Your task to perform on an android device: toggle sleep mode Image 0: 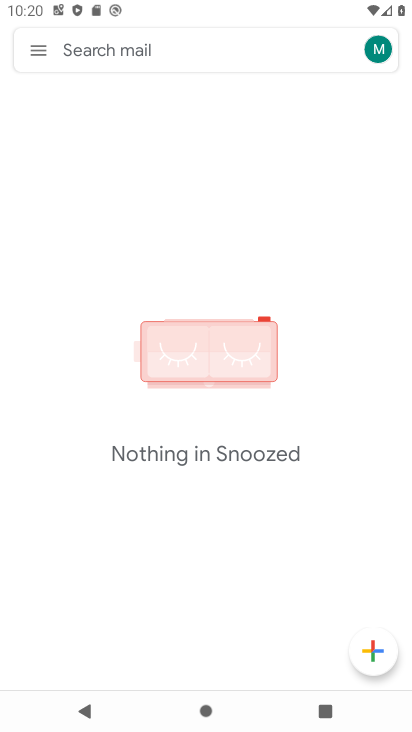
Step 0: press home button
Your task to perform on an android device: toggle sleep mode Image 1: 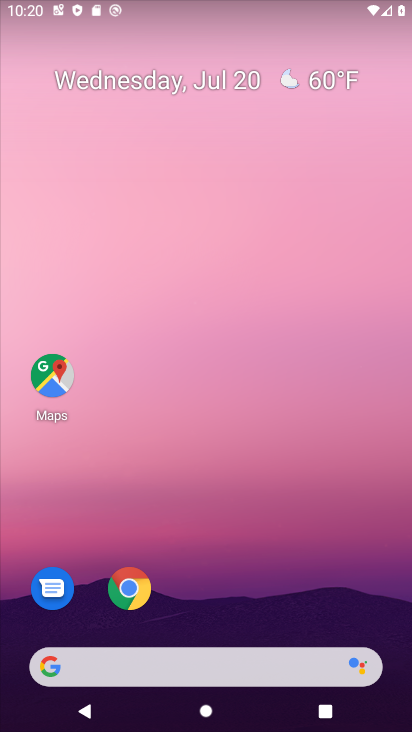
Step 1: drag from (249, 633) to (278, 56)
Your task to perform on an android device: toggle sleep mode Image 2: 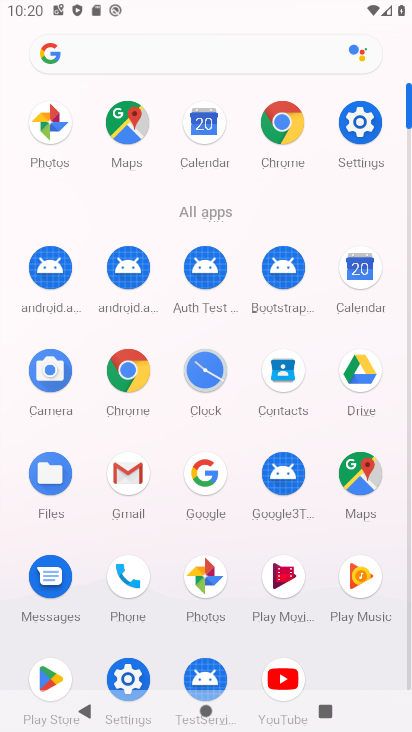
Step 2: click (355, 128)
Your task to perform on an android device: toggle sleep mode Image 3: 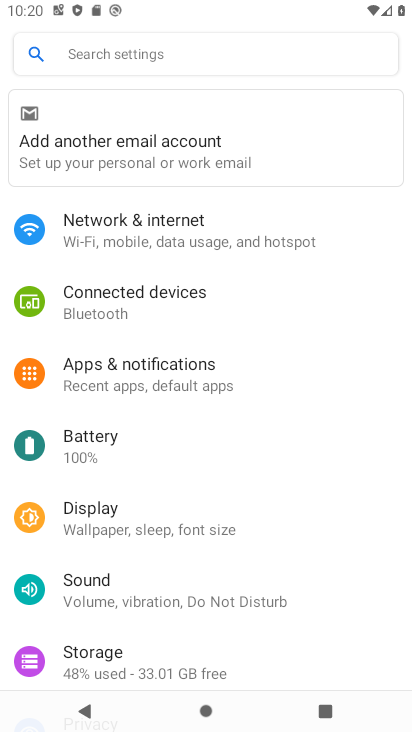
Step 3: click (187, 45)
Your task to perform on an android device: toggle sleep mode Image 4: 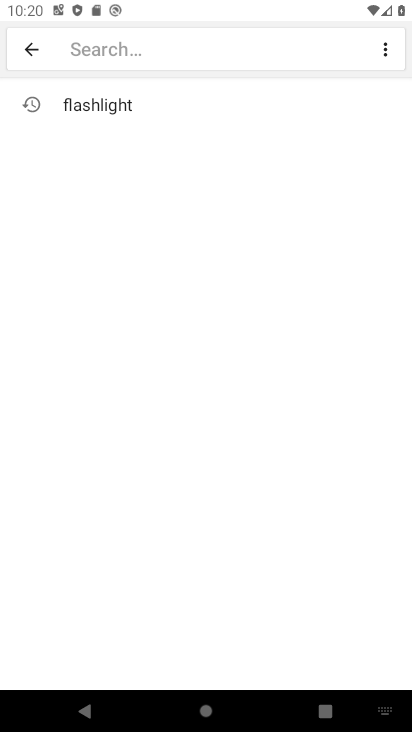
Step 4: type "sleep mode"
Your task to perform on an android device: toggle sleep mode Image 5: 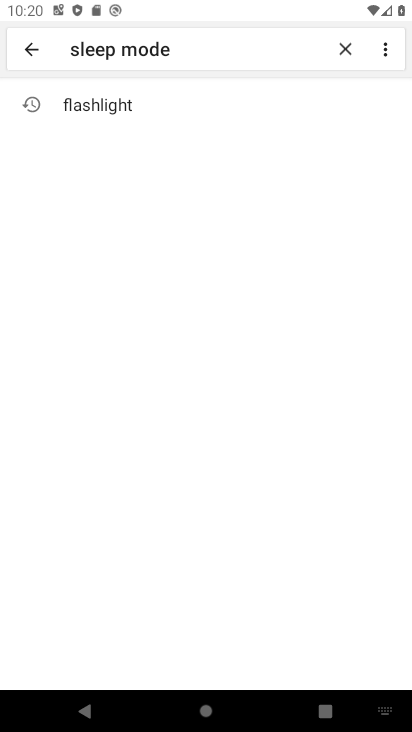
Step 5: click (177, 223)
Your task to perform on an android device: toggle sleep mode Image 6: 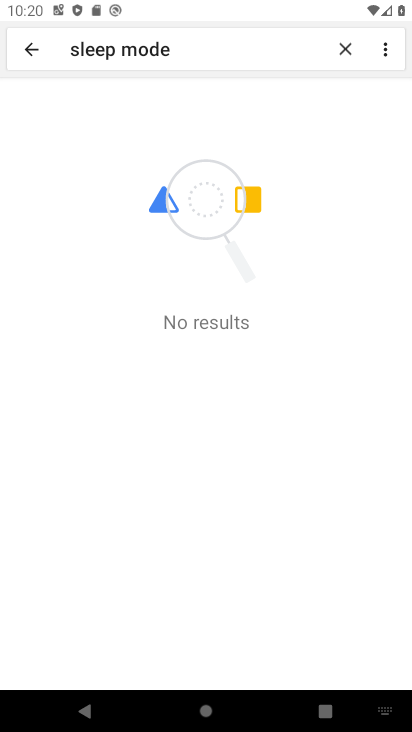
Step 6: task complete